Your task to perform on an android device: visit the assistant section in the google photos Image 0: 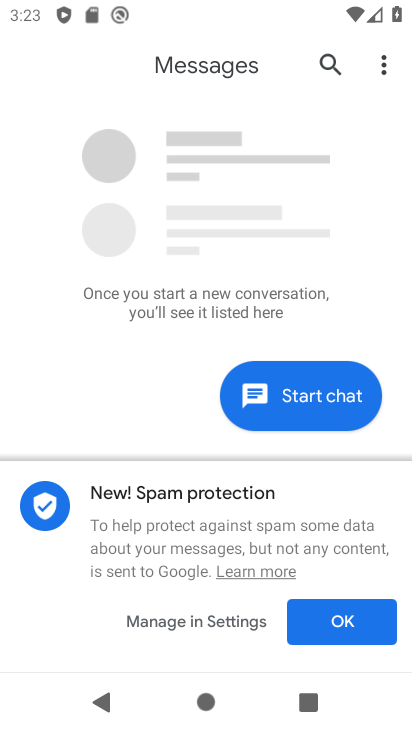
Step 0: press home button
Your task to perform on an android device: visit the assistant section in the google photos Image 1: 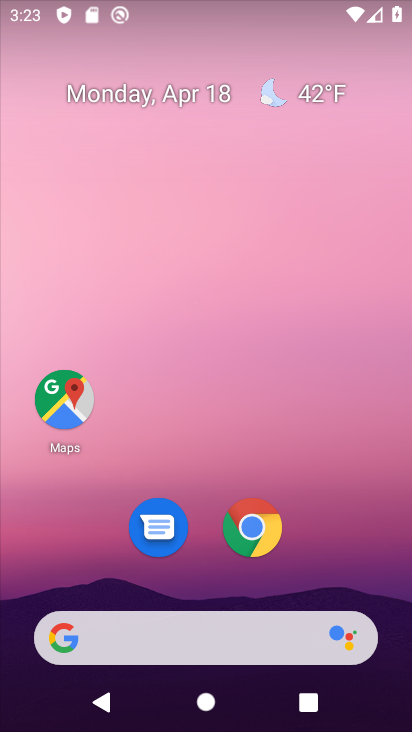
Step 1: drag from (393, 609) to (350, 15)
Your task to perform on an android device: visit the assistant section in the google photos Image 2: 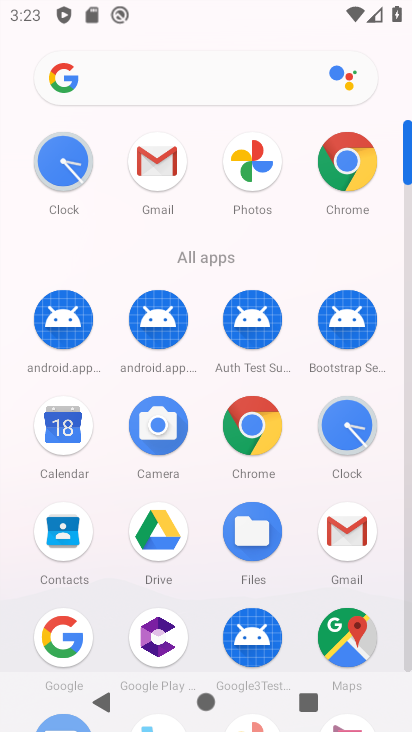
Step 2: click (407, 651)
Your task to perform on an android device: visit the assistant section in the google photos Image 3: 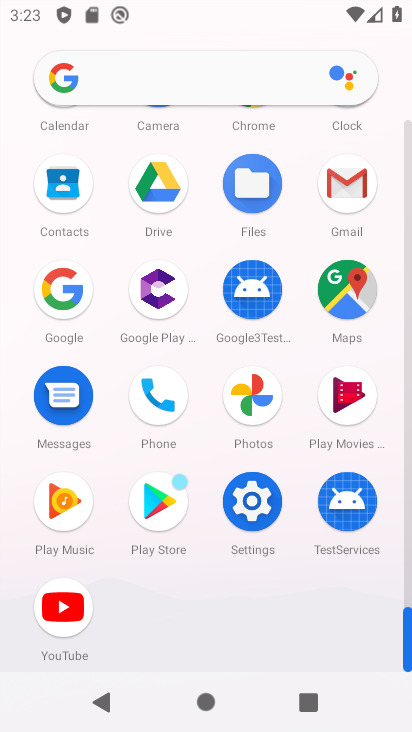
Step 3: click (254, 392)
Your task to perform on an android device: visit the assistant section in the google photos Image 4: 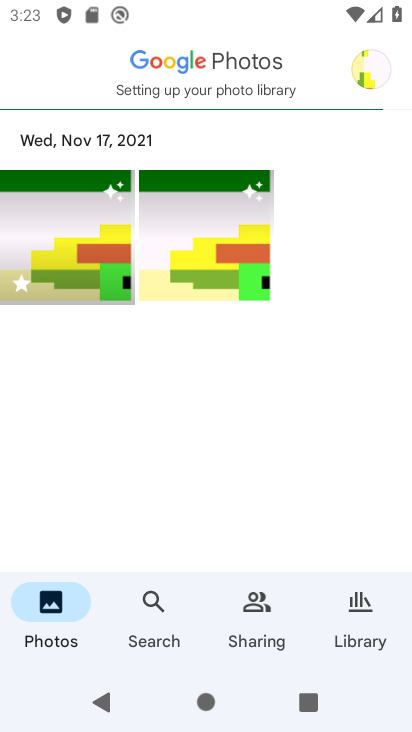
Step 4: click (348, 600)
Your task to perform on an android device: visit the assistant section in the google photos Image 5: 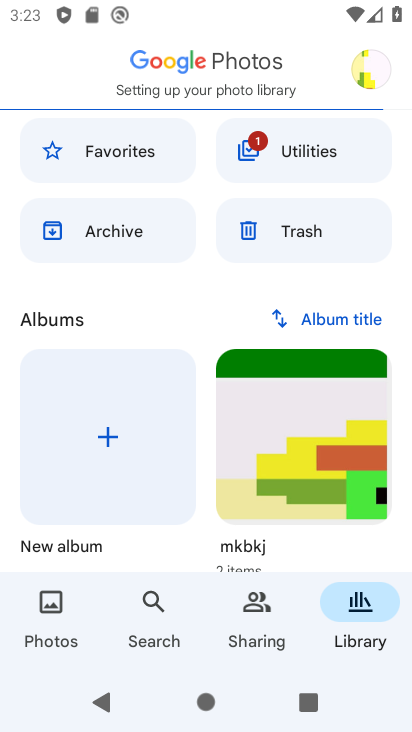
Step 5: drag from (256, 509) to (228, 575)
Your task to perform on an android device: visit the assistant section in the google photos Image 6: 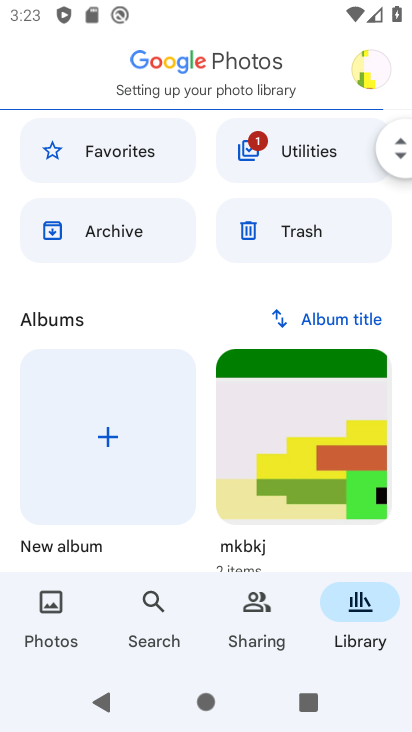
Step 6: click (365, 74)
Your task to perform on an android device: visit the assistant section in the google photos Image 7: 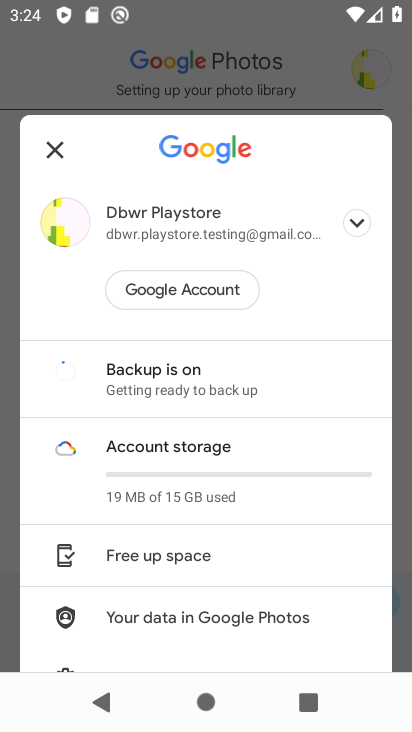
Step 7: drag from (281, 577) to (270, 405)
Your task to perform on an android device: visit the assistant section in the google photos Image 8: 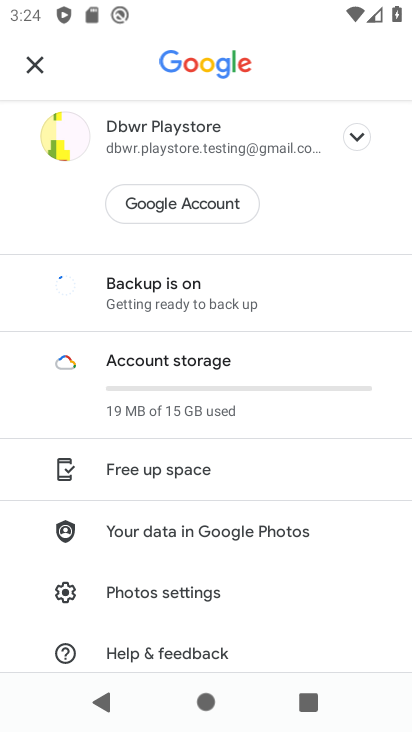
Step 8: click (32, 62)
Your task to perform on an android device: visit the assistant section in the google photos Image 9: 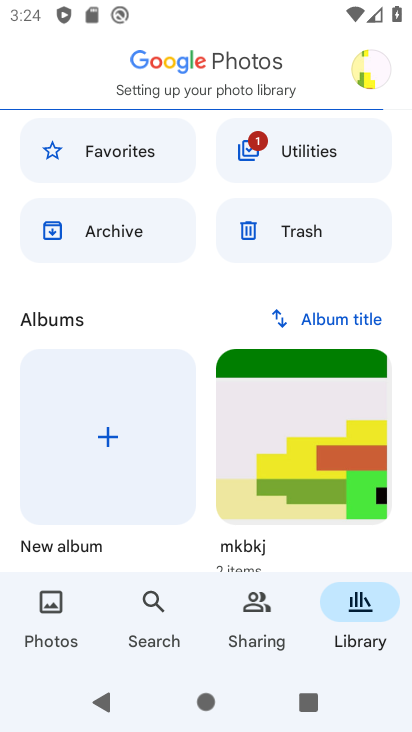
Step 9: task complete